Your task to perform on an android device: toggle javascript in the chrome app Image 0: 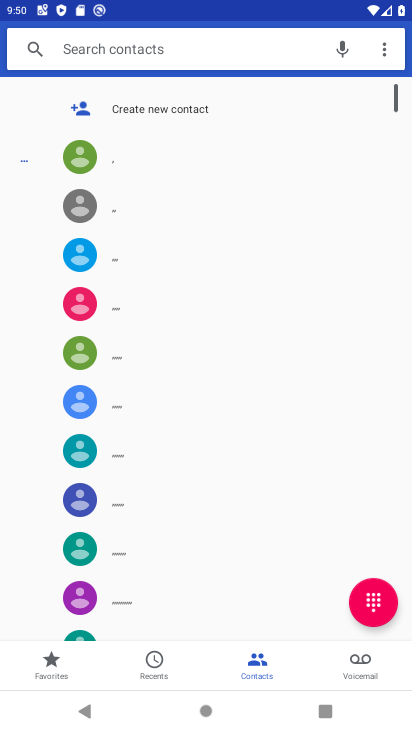
Step 0: press home button
Your task to perform on an android device: toggle javascript in the chrome app Image 1: 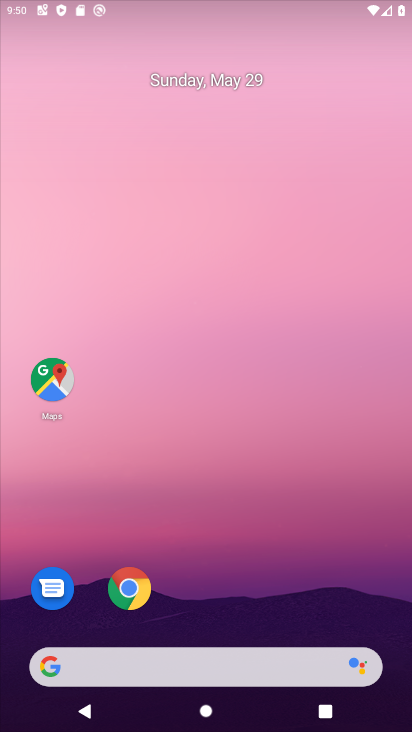
Step 1: drag from (251, 590) to (268, 112)
Your task to perform on an android device: toggle javascript in the chrome app Image 2: 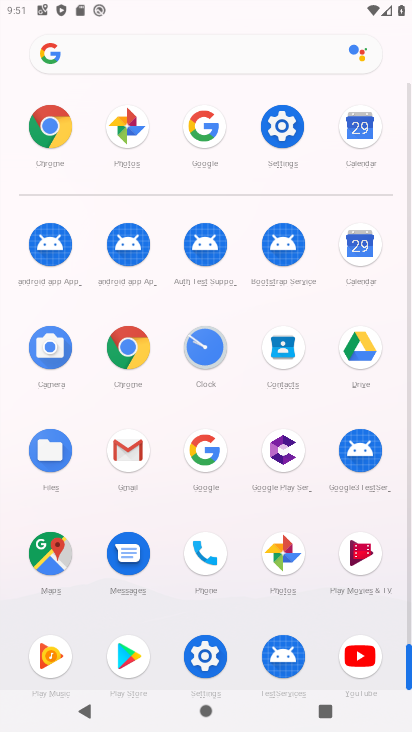
Step 2: click (148, 348)
Your task to perform on an android device: toggle javascript in the chrome app Image 3: 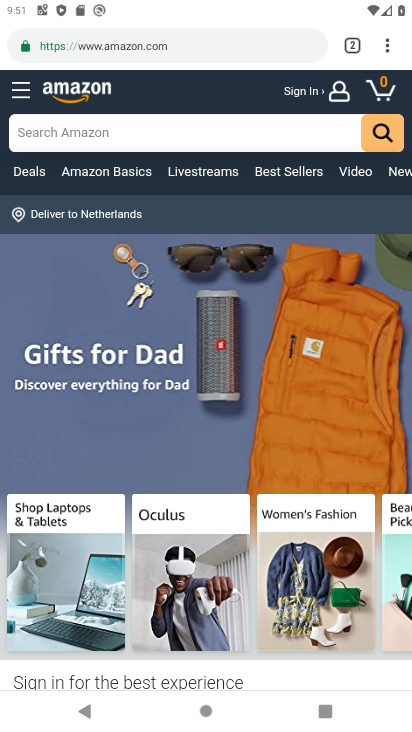
Step 3: click (384, 41)
Your task to perform on an android device: toggle javascript in the chrome app Image 4: 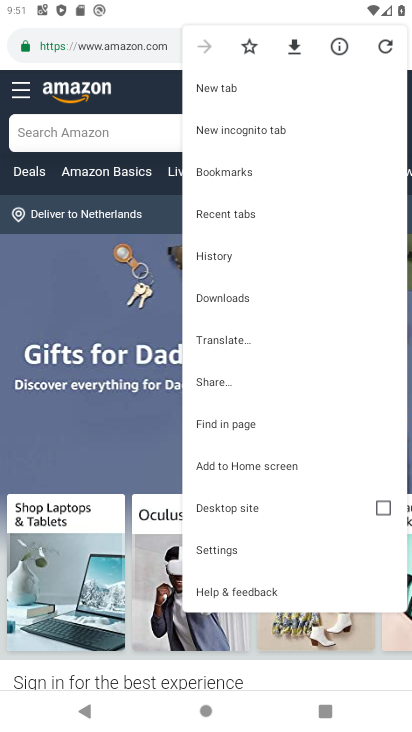
Step 4: click (237, 548)
Your task to perform on an android device: toggle javascript in the chrome app Image 5: 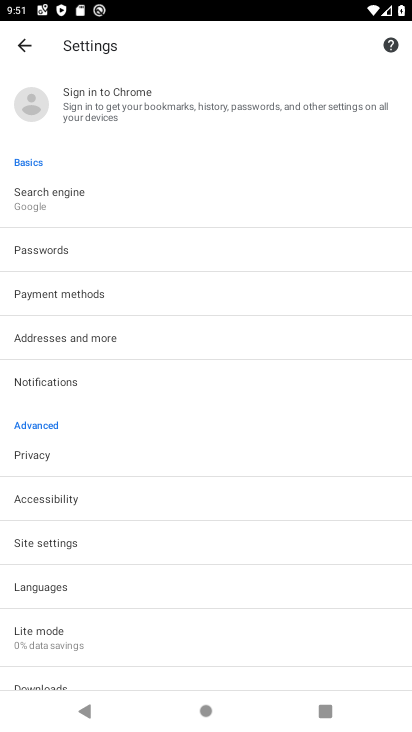
Step 5: click (91, 550)
Your task to perform on an android device: toggle javascript in the chrome app Image 6: 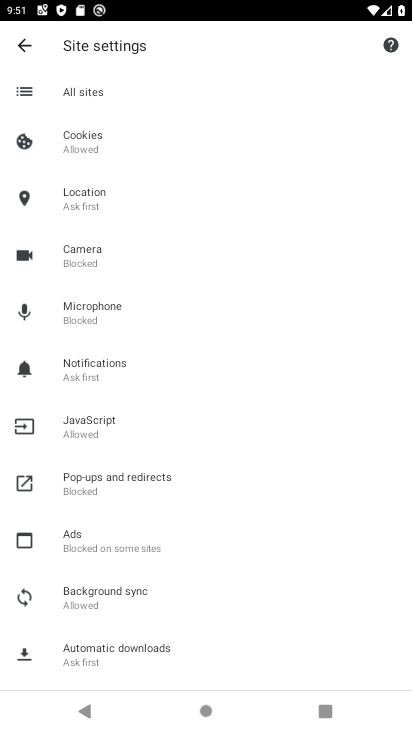
Step 6: click (124, 431)
Your task to perform on an android device: toggle javascript in the chrome app Image 7: 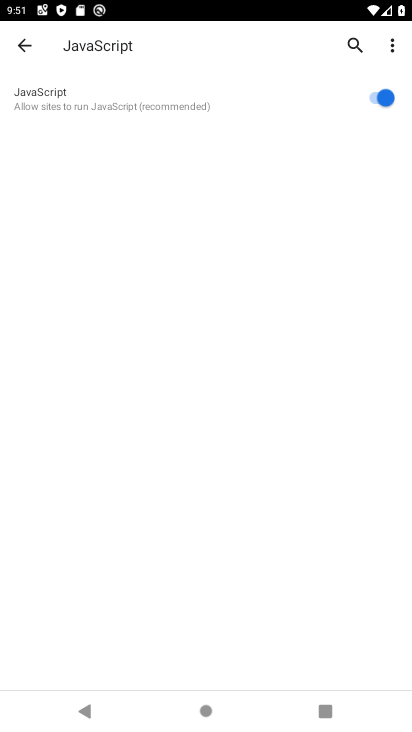
Step 7: click (375, 97)
Your task to perform on an android device: toggle javascript in the chrome app Image 8: 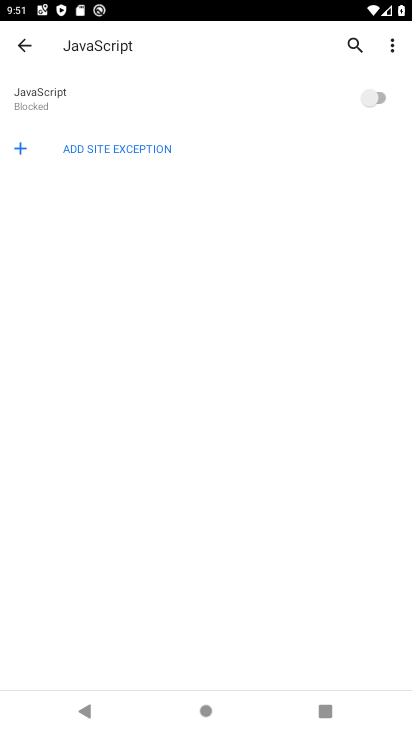
Step 8: task complete